Your task to perform on an android device: add a contact Image 0: 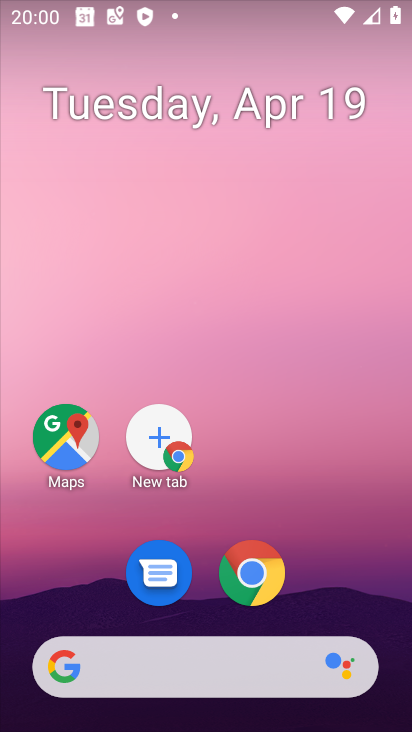
Step 0: drag from (377, 552) to (344, 219)
Your task to perform on an android device: add a contact Image 1: 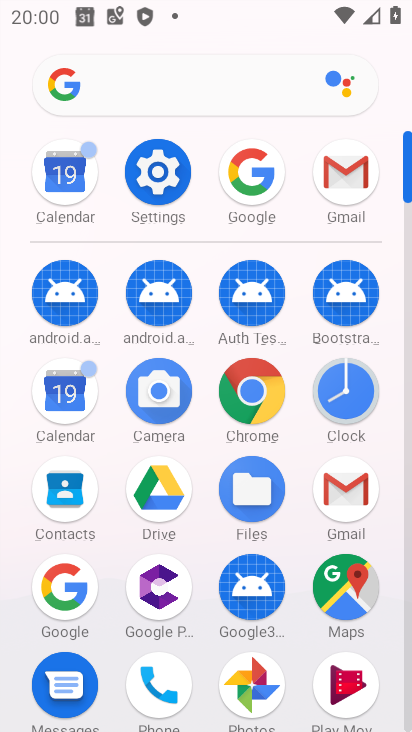
Step 1: click (67, 494)
Your task to perform on an android device: add a contact Image 2: 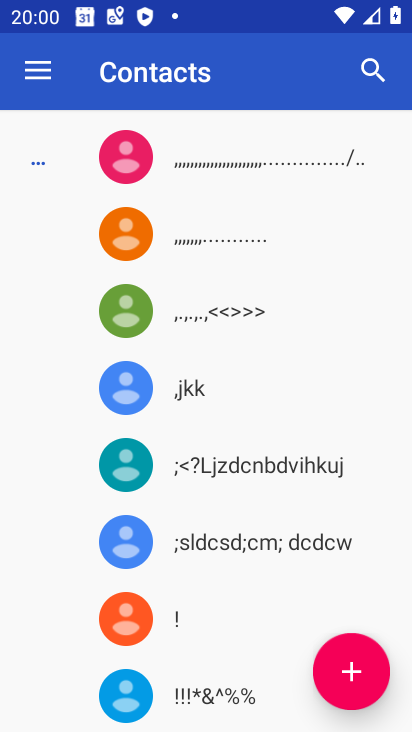
Step 2: click (347, 669)
Your task to perform on an android device: add a contact Image 3: 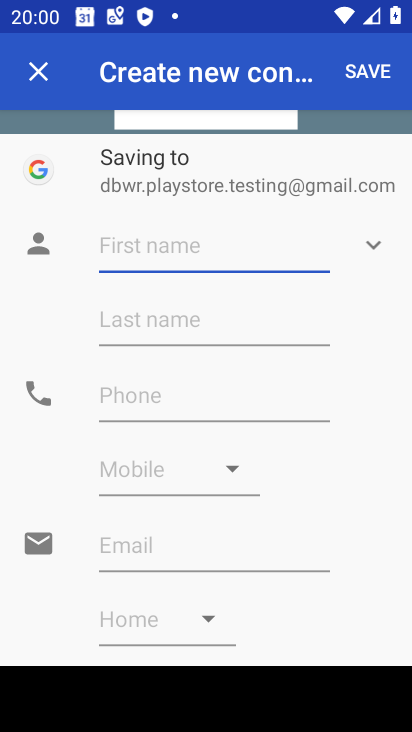
Step 3: type "fdfgdgdfdfffff"
Your task to perform on an android device: add a contact Image 4: 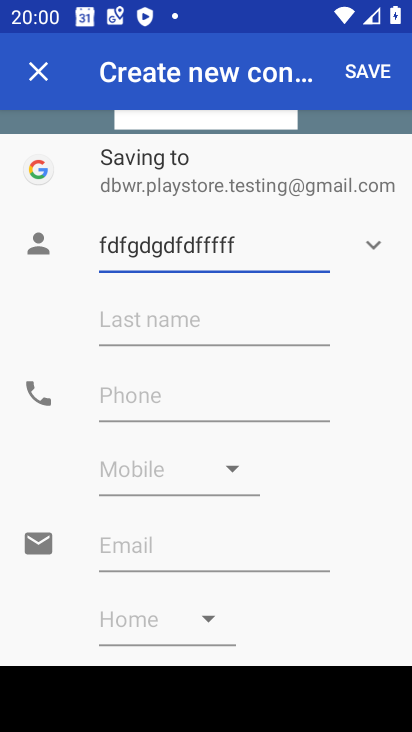
Step 4: click (221, 319)
Your task to perform on an android device: add a contact Image 5: 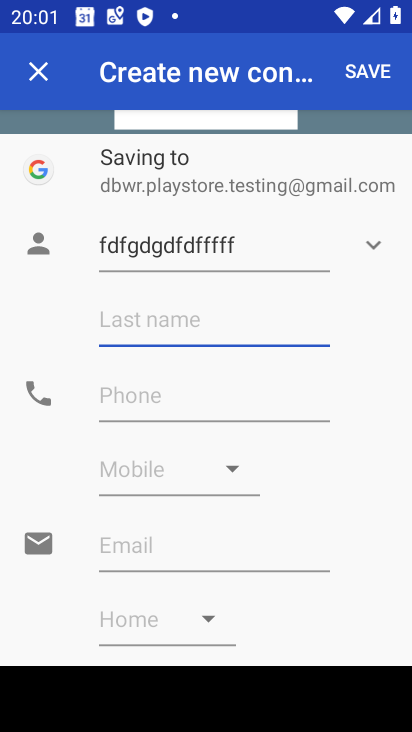
Step 5: type "dfdhfdjhgdghdh"
Your task to perform on an android device: add a contact Image 6: 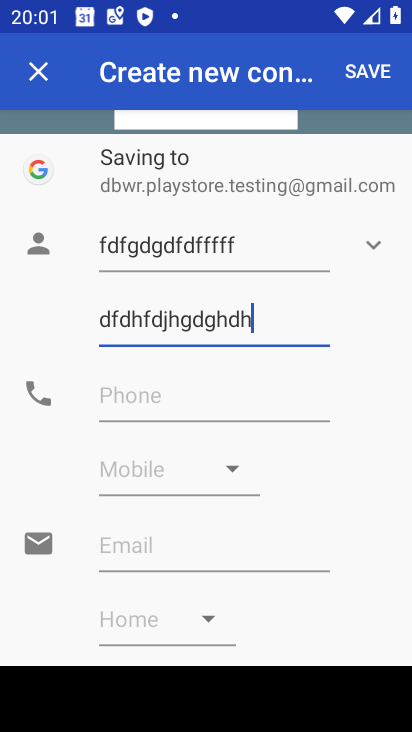
Step 6: click (179, 393)
Your task to perform on an android device: add a contact Image 7: 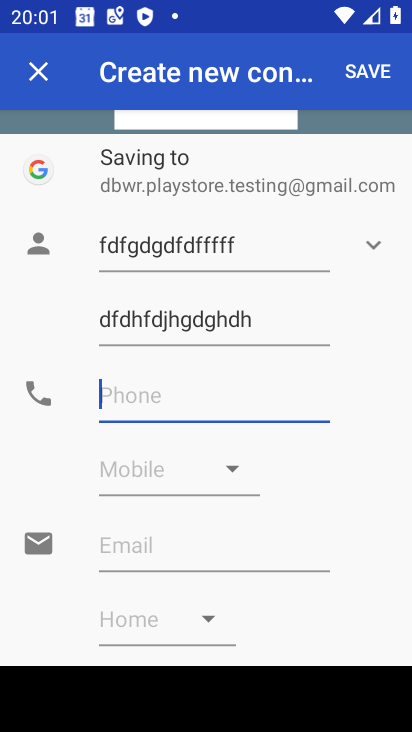
Step 7: type "66666666666699"
Your task to perform on an android device: add a contact Image 8: 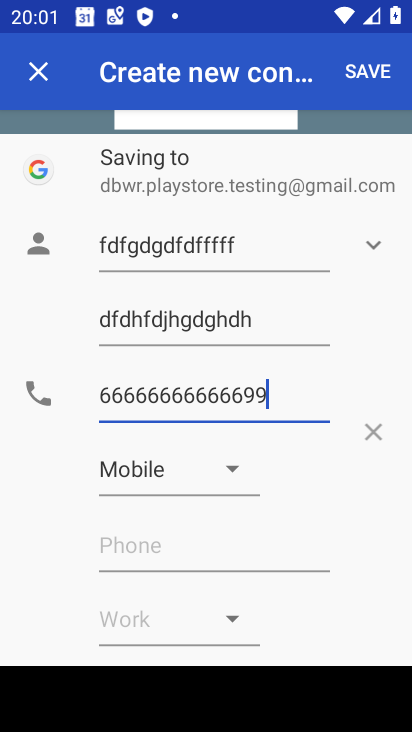
Step 8: click (360, 70)
Your task to perform on an android device: add a contact Image 9: 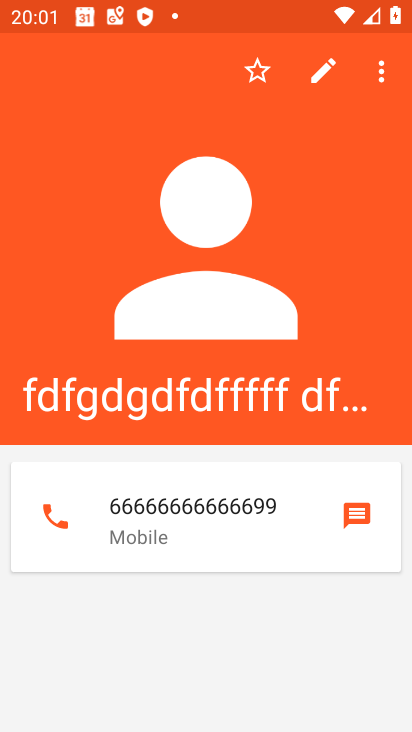
Step 9: task complete